Your task to perform on an android device: open app "Pandora - Music & Podcasts" (install if not already installed), go to login, and select forgot password Image 0: 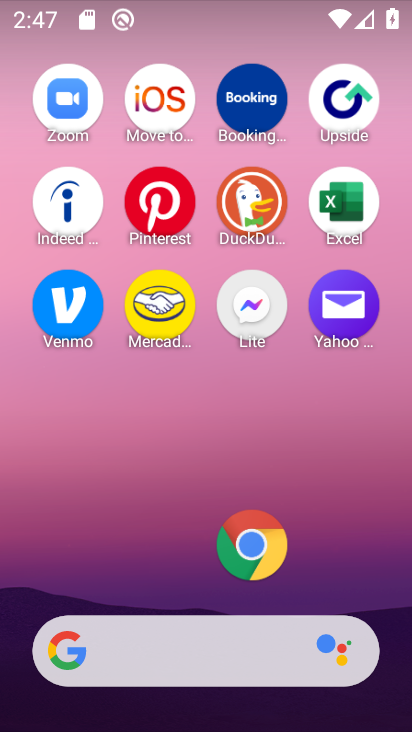
Step 0: drag from (164, 549) to (360, 0)
Your task to perform on an android device: open app "Pandora - Music & Podcasts" (install if not already installed), go to login, and select forgot password Image 1: 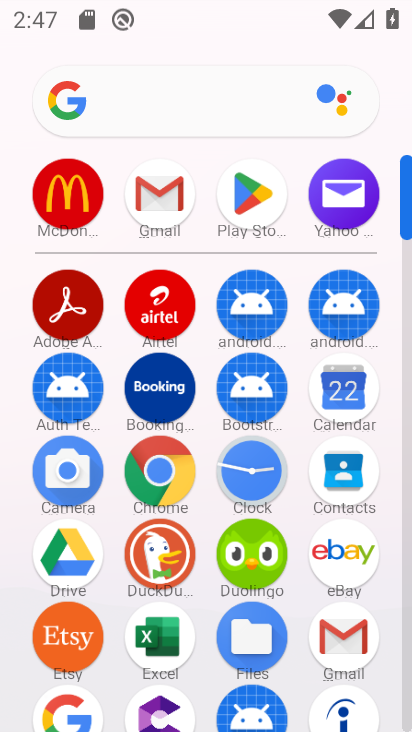
Step 1: click (251, 220)
Your task to perform on an android device: open app "Pandora - Music & Podcasts" (install if not already installed), go to login, and select forgot password Image 2: 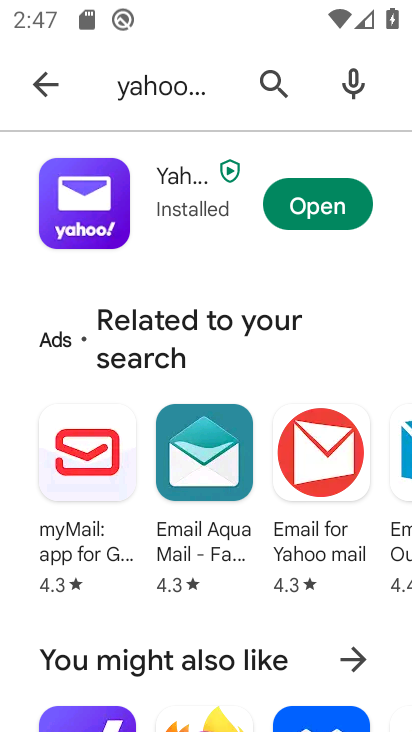
Step 2: click (284, 73)
Your task to perform on an android device: open app "Pandora - Music & Podcasts" (install if not already installed), go to login, and select forgot password Image 3: 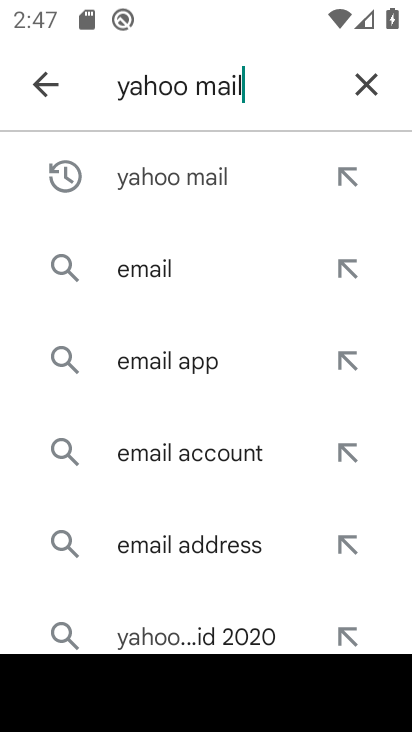
Step 3: click (379, 76)
Your task to perform on an android device: open app "Pandora - Music & Podcasts" (install if not already installed), go to login, and select forgot password Image 4: 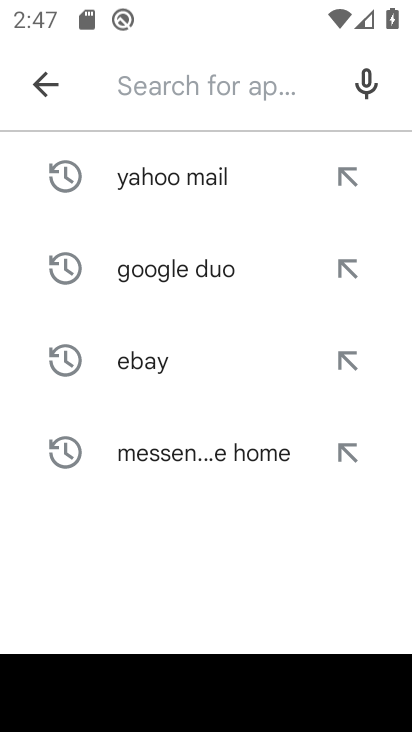
Step 4: click (144, 69)
Your task to perform on an android device: open app "Pandora - Music & Podcasts" (install if not already installed), go to login, and select forgot password Image 5: 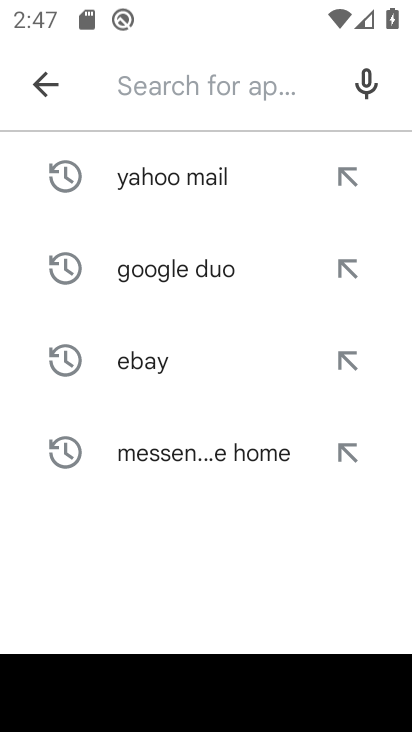
Step 5: click (167, 576)
Your task to perform on an android device: open app "Pandora - Music & Podcasts" (install if not already installed), go to login, and select forgot password Image 6: 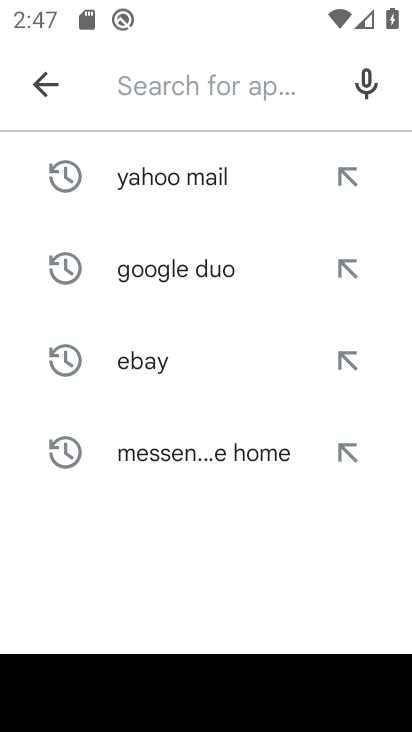
Step 6: type "Pandora"
Your task to perform on an android device: open app "Pandora - Music & Podcasts" (install if not already installed), go to login, and select forgot password Image 7: 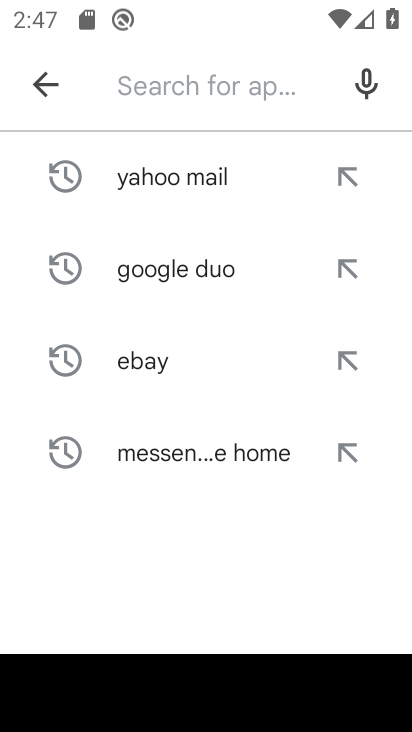
Step 7: click (167, 576)
Your task to perform on an android device: open app "Pandora - Music & Podcasts" (install if not already installed), go to login, and select forgot password Image 8: 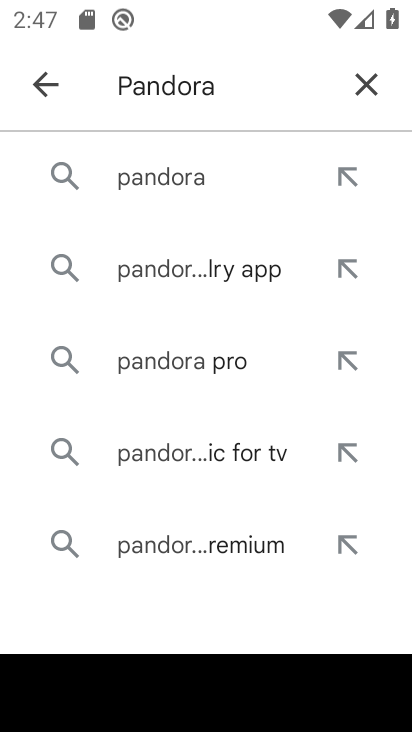
Step 8: click (151, 171)
Your task to perform on an android device: open app "Pandora - Music & Podcasts" (install if not already installed), go to login, and select forgot password Image 9: 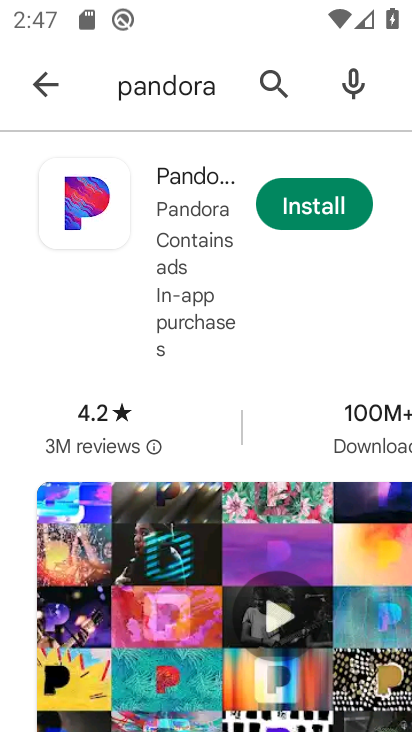
Step 9: click (289, 218)
Your task to perform on an android device: open app "Pandora - Music & Podcasts" (install if not already installed), go to login, and select forgot password Image 10: 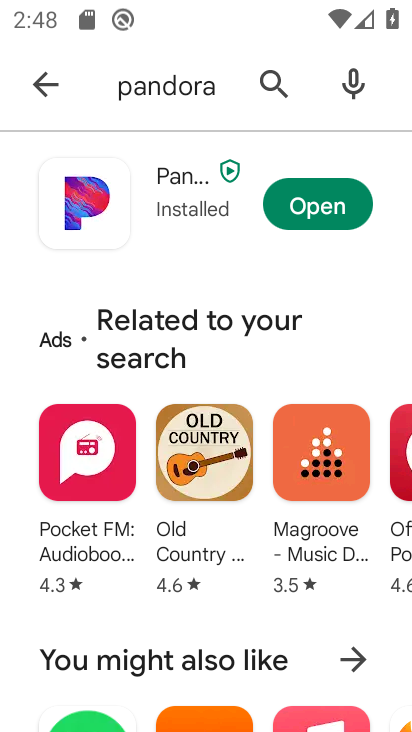
Step 10: click (320, 217)
Your task to perform on an android device: open app "Pandora - Music & Podcasts" (install if not already installed), go to login, and select forgot password Image 11: 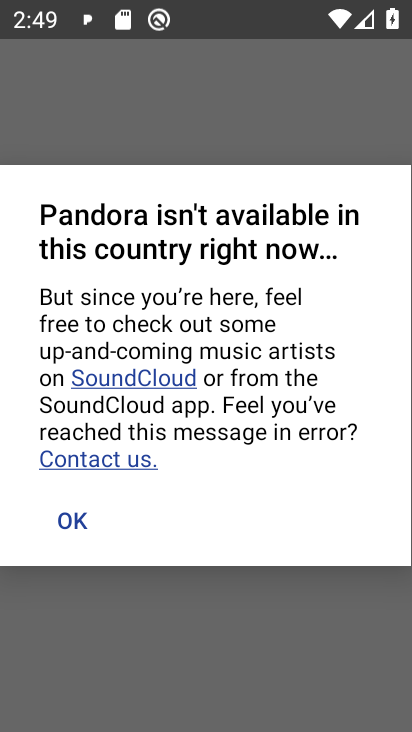
Step 11: click (68, 524)
Your task to perform on an android device: open app "Pandora - Music & Podcasts" (install if not already installed), go to login, and select forgot password Image 12: 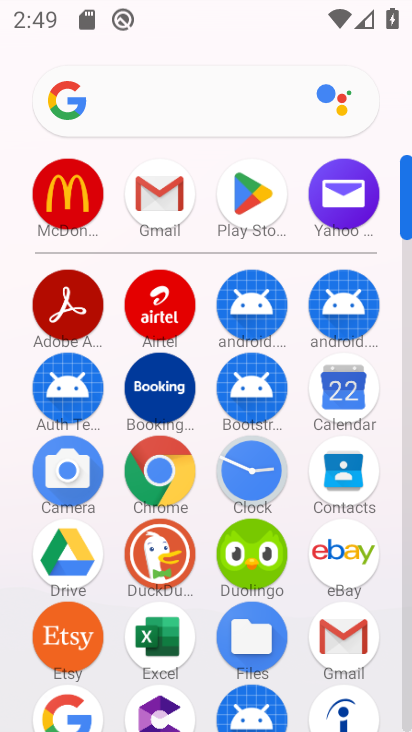
Step 12: click (257, 201)
Your task to perform on an android device: open app "Pandora - Music & Podcasts" (install if not already installed), go to login, and select forgot password Image 13: 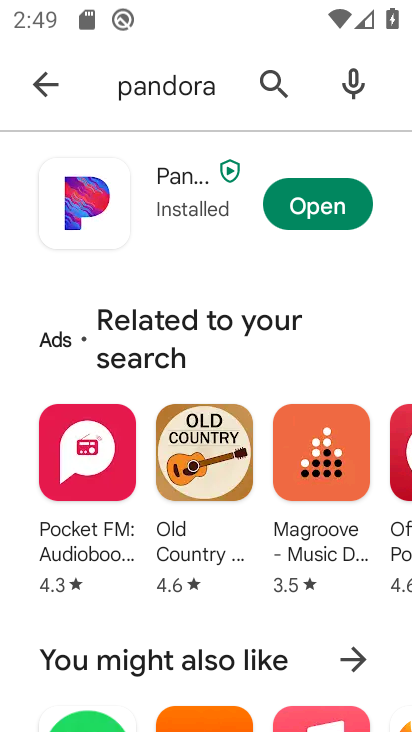
Step 13: click (317, 206)
Your task to perform on an android device: open app "Pandora - Music & Podcasts" (install if not already installed), go to login, and select forgot password Image 14: 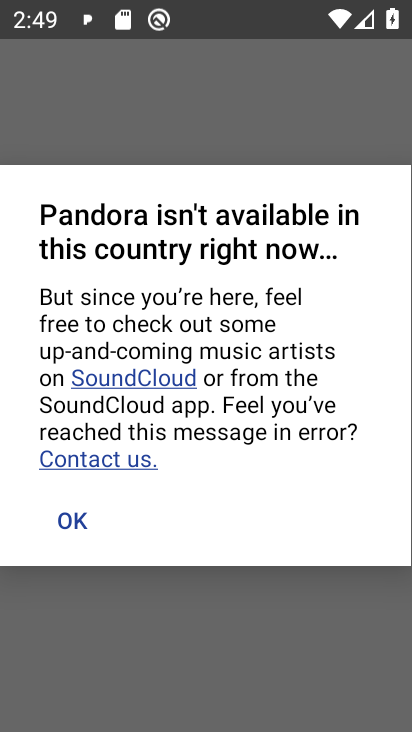
Step 14: click (62, 513)
Your task to perform on an android device: open app "Pandora - Music & Podcasts" (install if not already installed), go to login, and select forgot password Image 15: 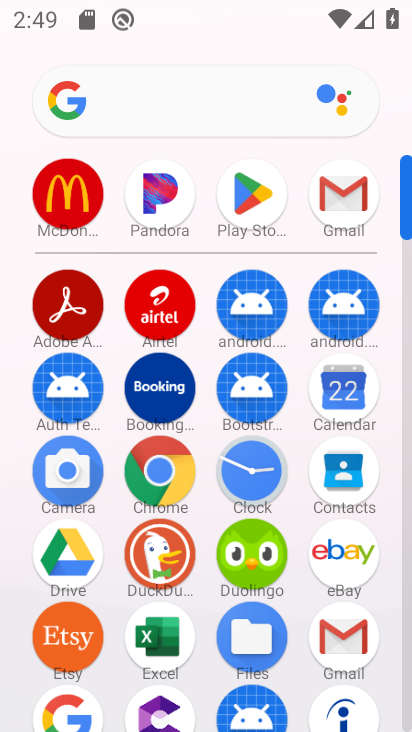
Step 15: task complete